Your task to perform on an android device: turn off sleep mode Image 0: 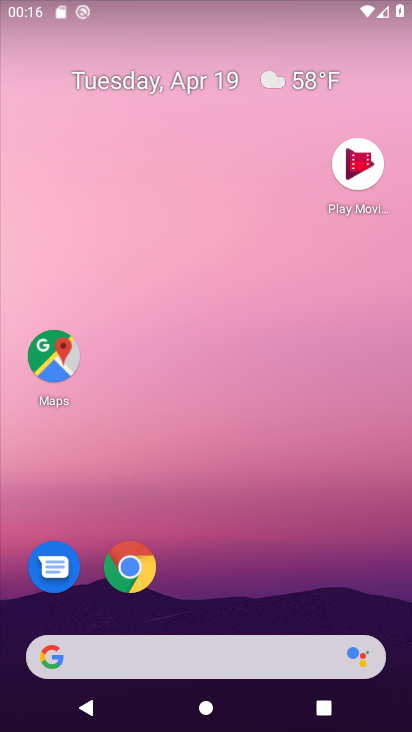
Step 0: drag from (184, 631) to (221, 175)
Your task to perform on an android device: turn off sleep mode Image 1: 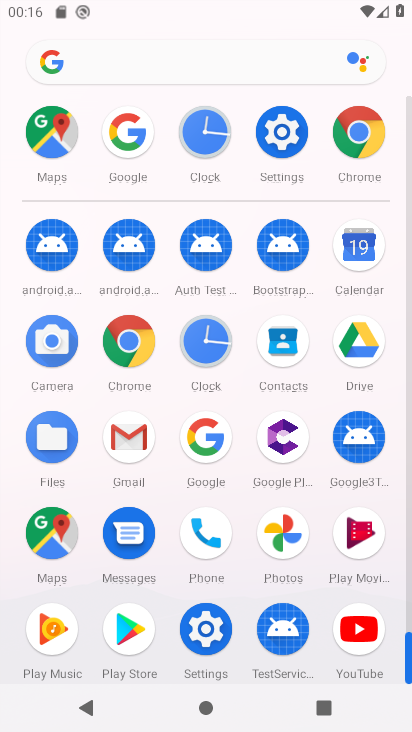
Step 1: click (201, 625)
Your task to perform on an android device: turn off sleep mode Image 2: 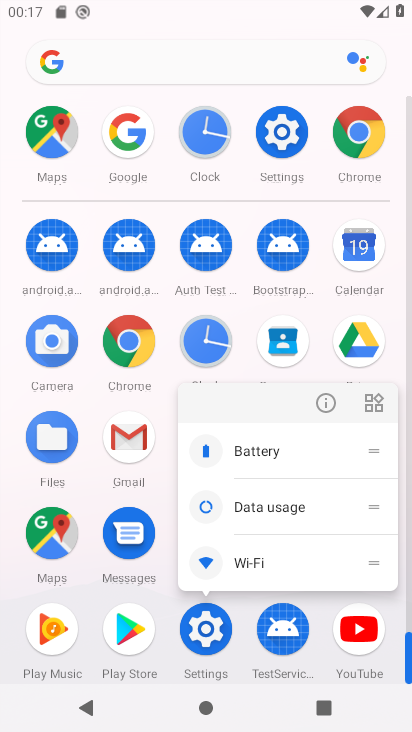
Step 2: click (327, 402)
Your task to perform on an android device: turn off sleep mode Image 3: 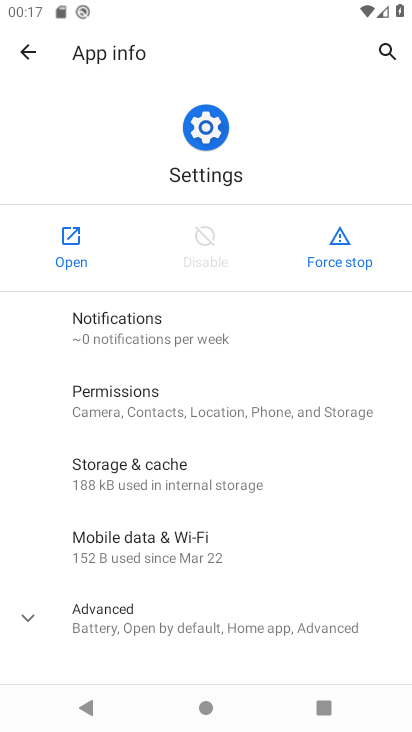
Step 3: click (71, 238)
Your task to perform on an android device: turn off sleep mode Image 4: 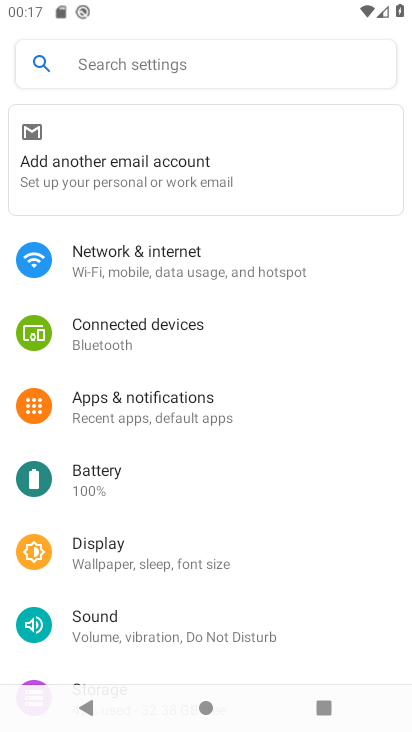
Step 4: drag from (192, 595) to (271, 246)
Your task to perform on an android device: turn off sleep mode Image 5: 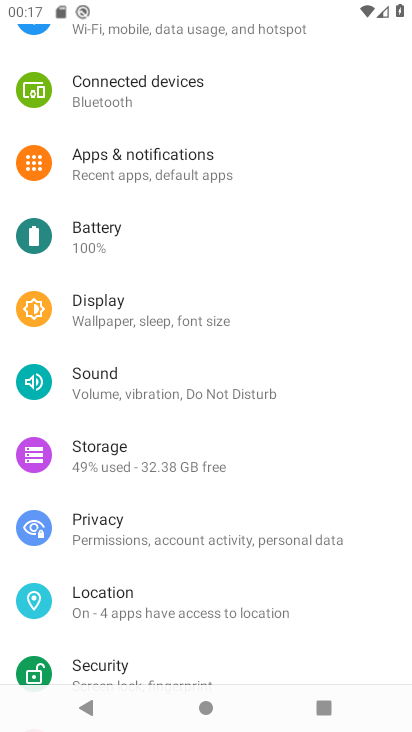
Step 5: click (140, 314)
Your task to perform on an android device: turn off sleep mode Image 6: 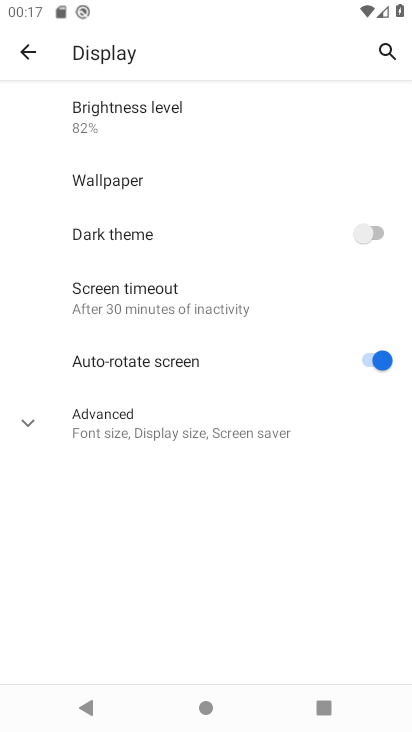
Step 6: click (167, 281)
Your task to perform on an android device: turn off sleep mode Image 7: 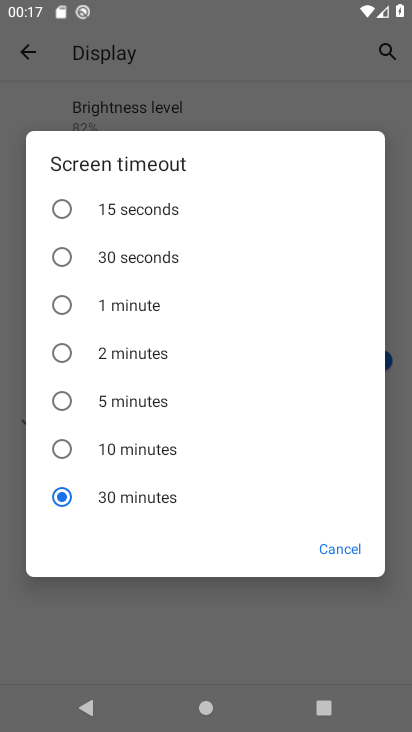
Step 7: task complete